Your task to perform on an android device: toggle data saver in the chrome app Image 0: 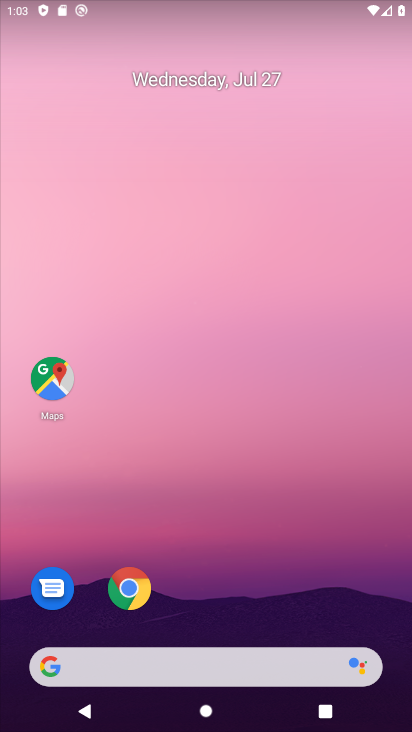
Step 0: click (149, 587)
Your task to perform on an android device: toggle data saver in the chrome app Image 1: 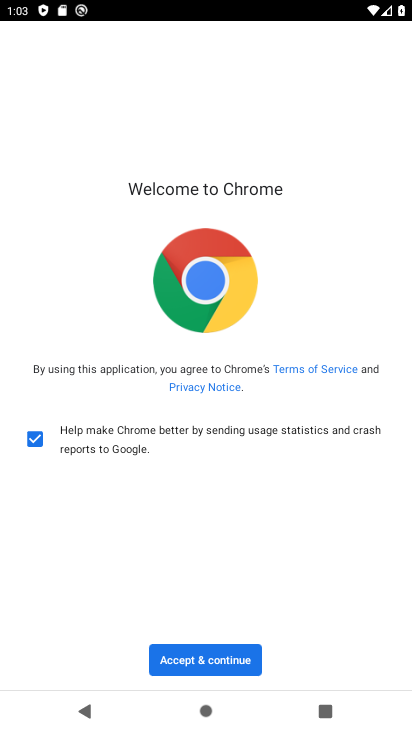
Step 1: click (204, 669)
Your task to perform on an android device: toggle data saver in the chrome app Image 2: 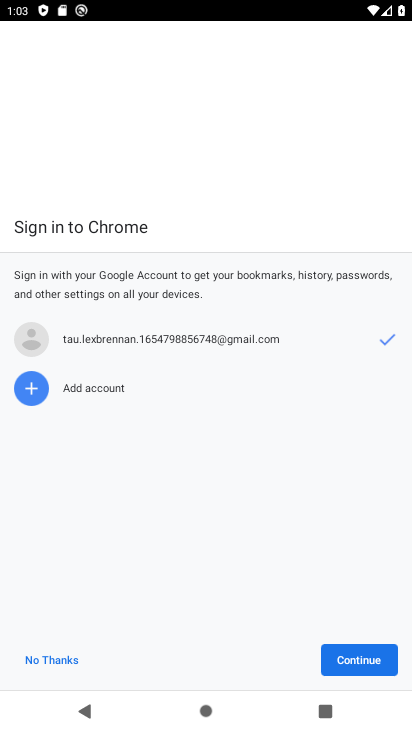
Step 2: click (357, 646)
Your task to perform on an android device: toggle data saver in the chrome app Image 3: 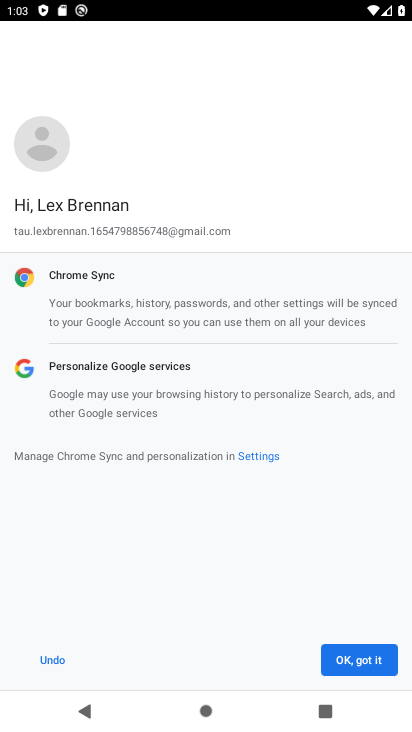
Step 3: click (347, 660)
Your task to perform on an android device: toggle data saver in the chrome app Image 4: 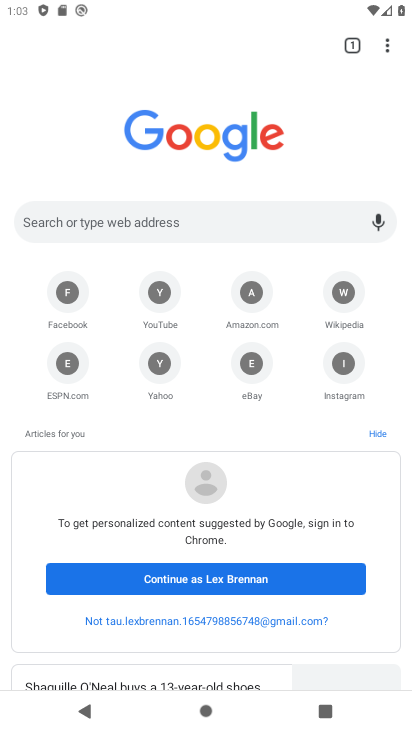
Step 4: click (390, 39)
Your task to perform on an android device: toggle data saver in the chrome app Image 5: 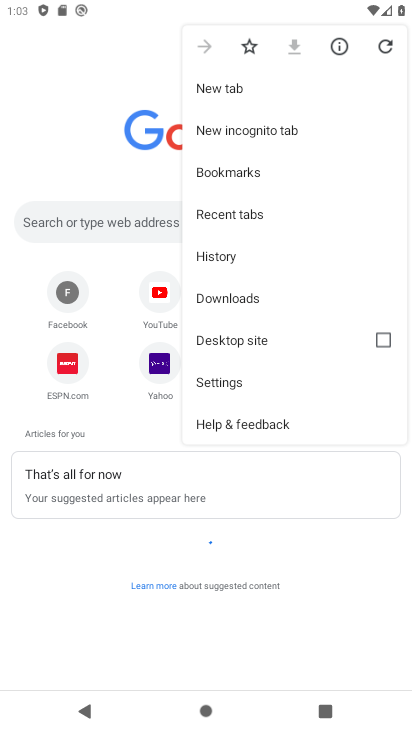
Step 5: click (248, 386)
Your task to perform on an android device: toggle data saver in the chrome app Image 6: 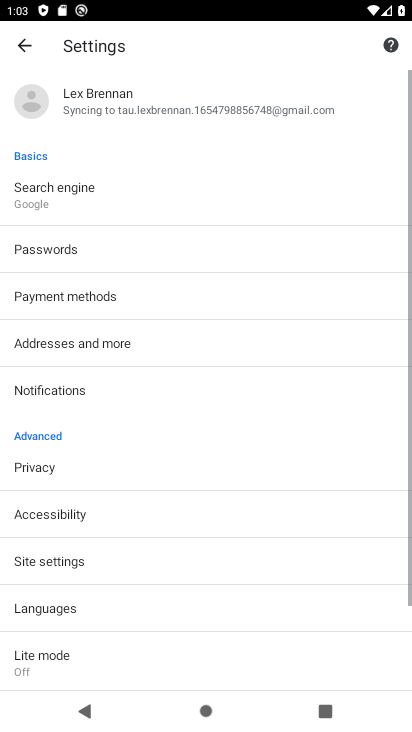
Step 6: click (45, 571)
Your task to perform on an android device: toggle data saver in the chrome app Image 7: 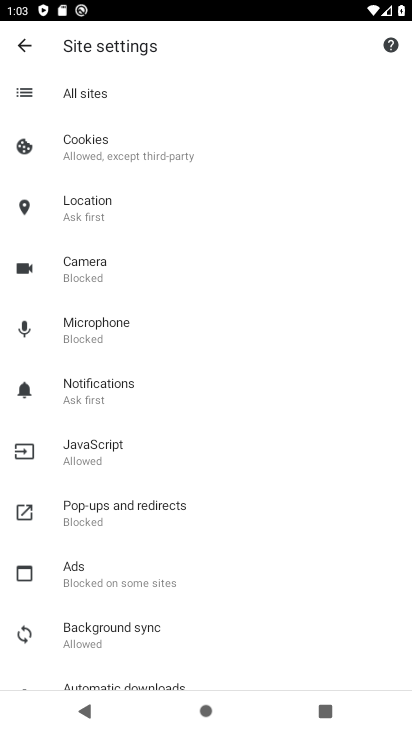
Step 7: click (29, 45)
Your task to perform on an android device: toggle data saver in the chrome app Image 8: 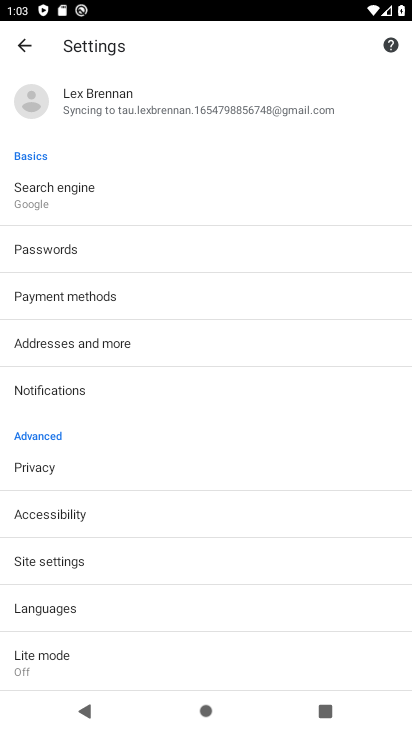
Step 8: click (77, 645)
Your task to perform on an android device: toggle data saver in the chrome app Image 9: 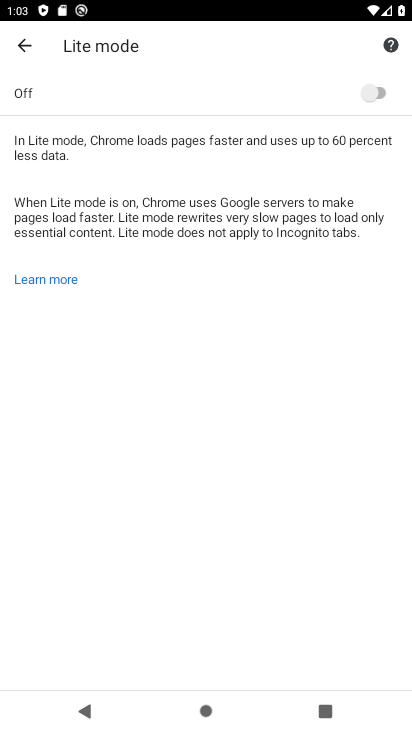
Step 9: click (380, 93)
Your task to perform on an android device: toggle data saver in the chrome app Image 10: 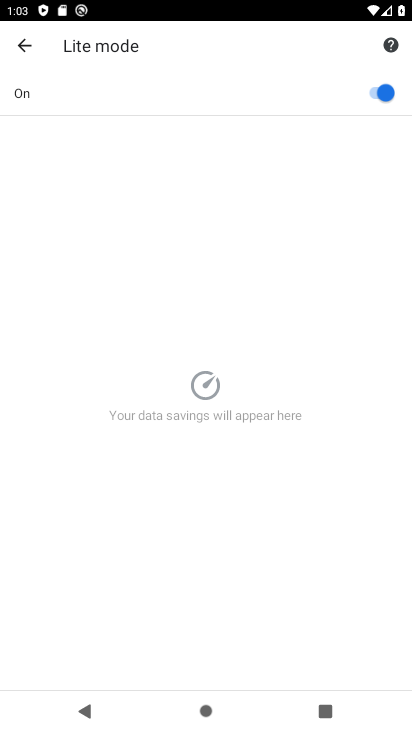
Step 10: task complete